Your task to perform on an android device: Open Youtube and go to "Your channel" Image 0: 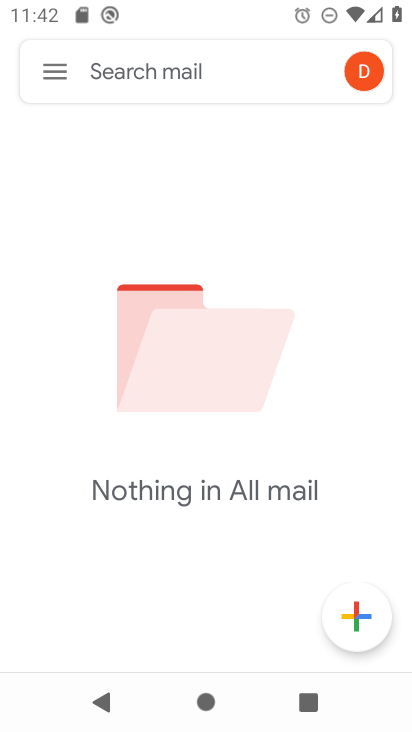
Step 0: press home button
Your task to perform on an android device: Open Youtube and go to "Your channel" Image 1: 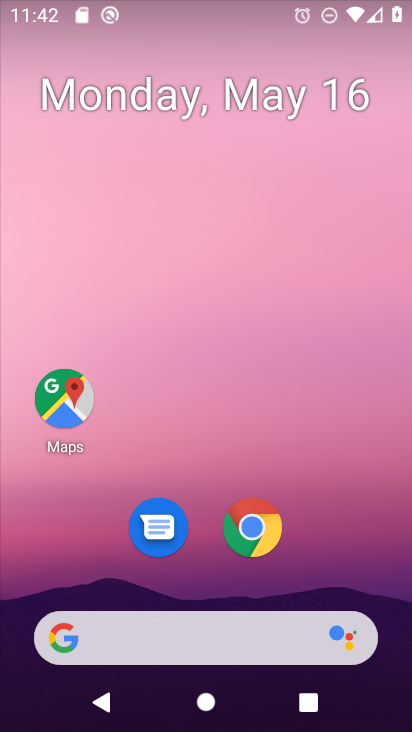
Step 1: drag from (363, 595) to (377, 7)
Your task to perform on an android device: Open Youtube and go to "Your channel" Image 2: 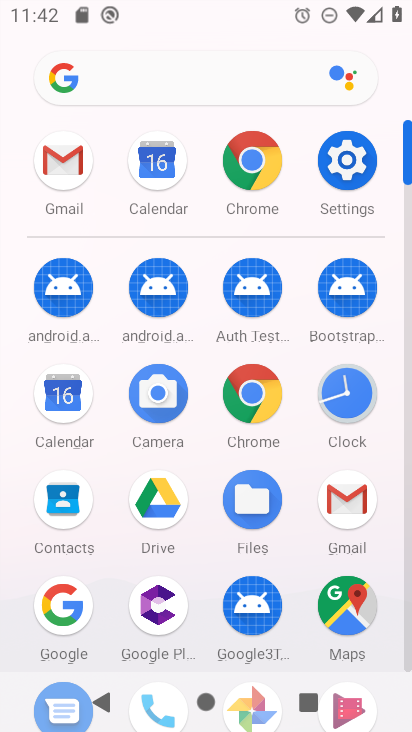
Step 2: click (405, 545)
Your task to perform on an android device: Open Youtube and go to "Your channel" Image 3: 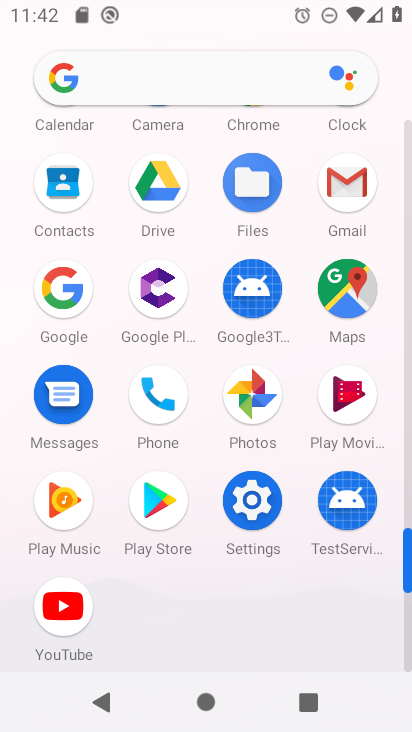
Step 3: click (56, 615)
Your task to perform on an android device: Open Youtube and go to "Your channel" Image 4: 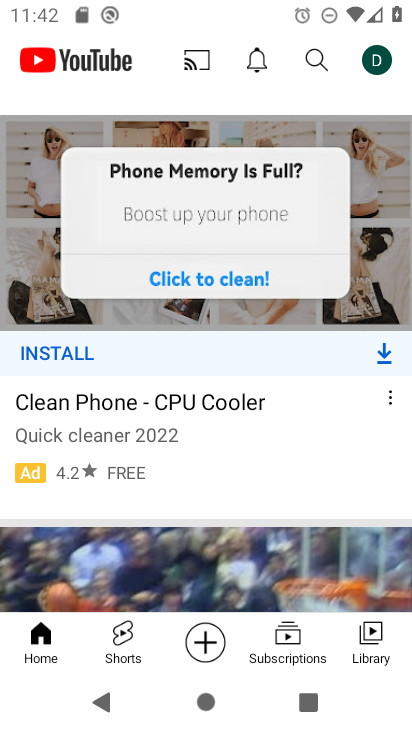
Step 4: click (381, 68)
Your task to perform on an android device: Open Youtube and go to "Your channel" Image 5: 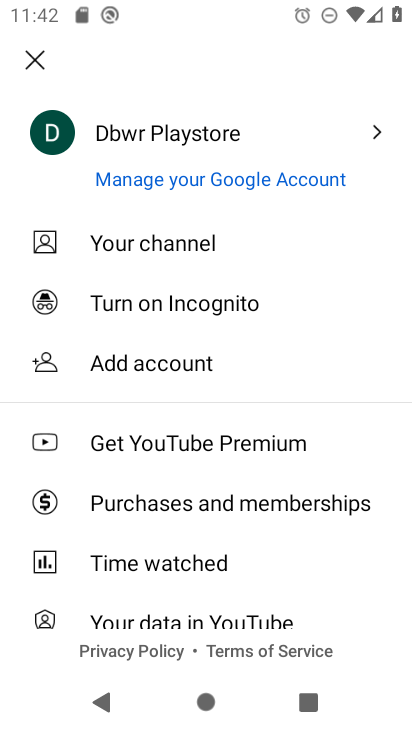
Step 5: click (130, 250)
Your task to perform on an android device: Open Youtube and go to "Your channel" Image 6: 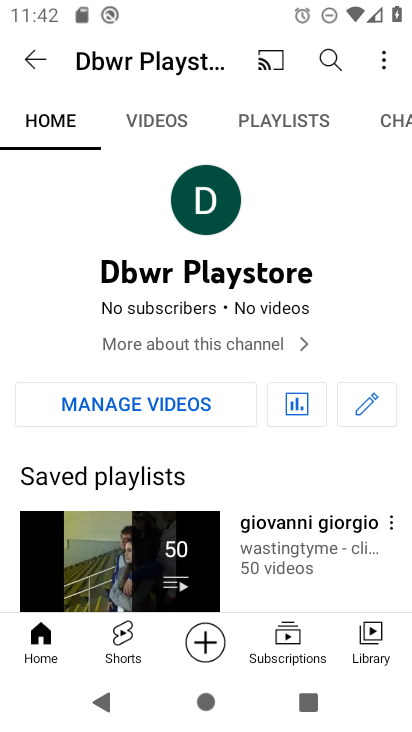
Step 6: task complete